Your task to perform on an android device: Search for pizza restaurants on Maps Image 0: 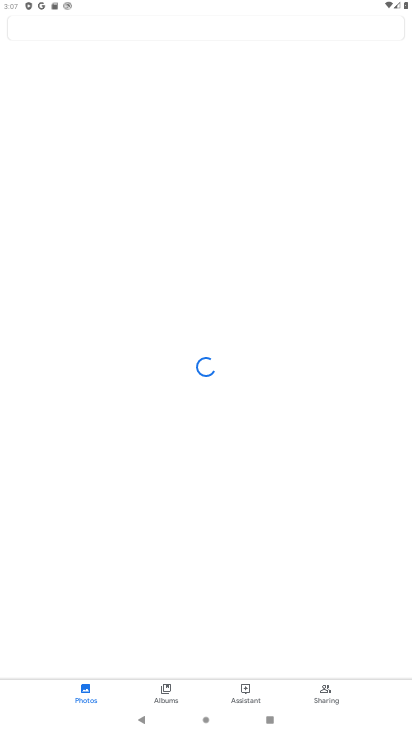
Step 0: press home button
Your task to perform on an android device: Search for pizza restaurants on Maps Image 1: 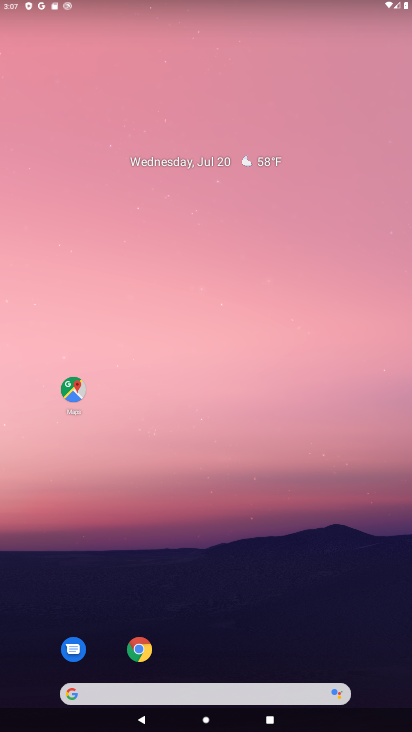
Step 1: drag from (223, 689) to (196, 127)
Your task to perform on an android device: Search for pizza restaurants on Maps Image 2: 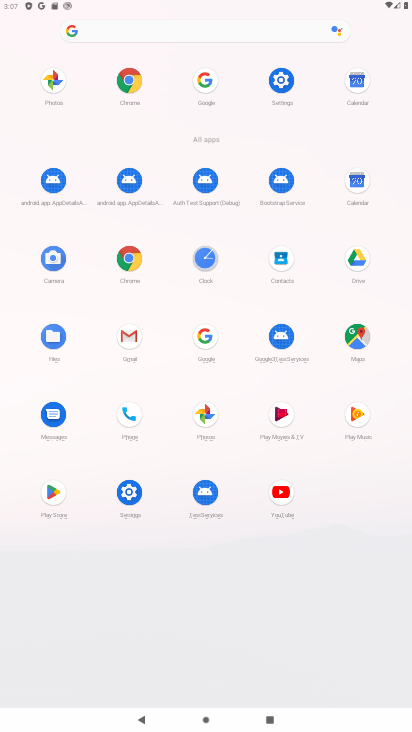
Step 2: click (355, 338)
Your task to perform on an android device: Search for pizza restaurants on Maps Image 3: 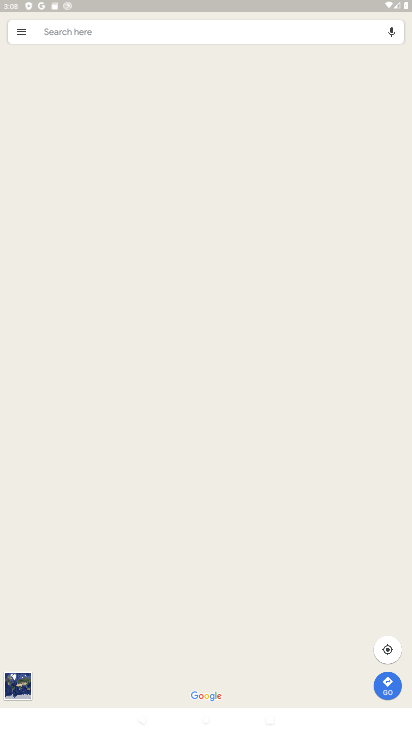
Step 3: click (196, 38)
Your task to perform on an android device: Search for pizza restaurants on Maps Image 4: 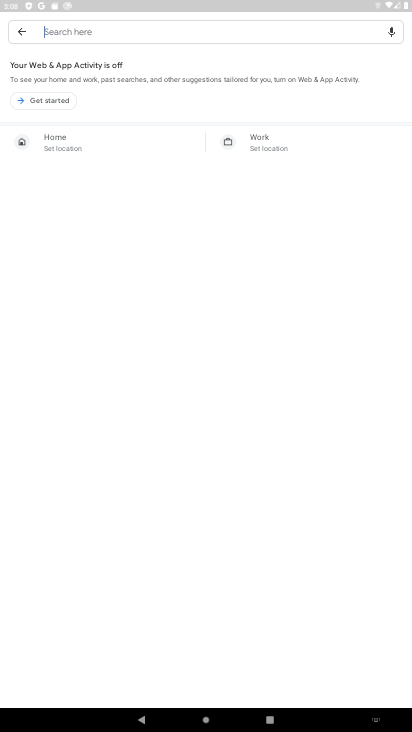
Step 4: type "Pizza restaurants"
Your task to perform on an android device: Search for pizza restaurants on Maps Image 5: 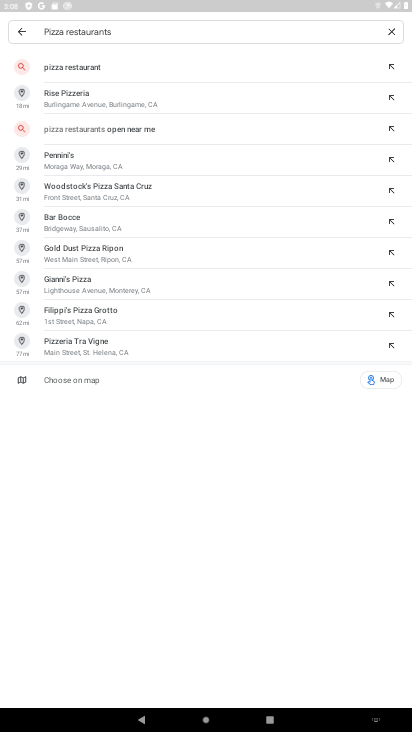
Step 5: click (74, 62)
Your task to perform on an android device: Search for pizza restaurants on Maps Image 6: 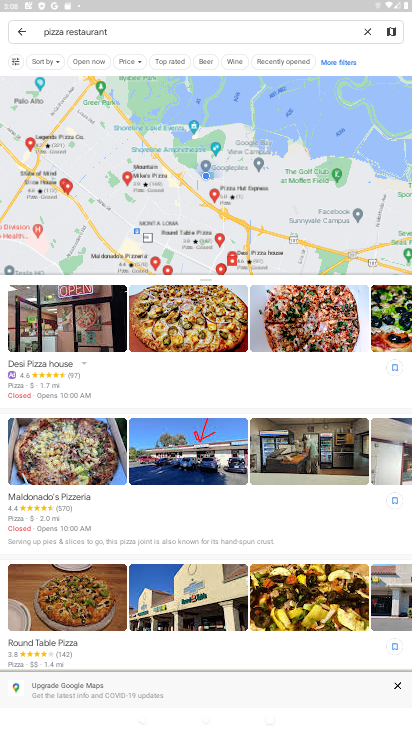
Step 6: task complete